Your task to perform on an android device: allow cookies in the chrome app Image 0: 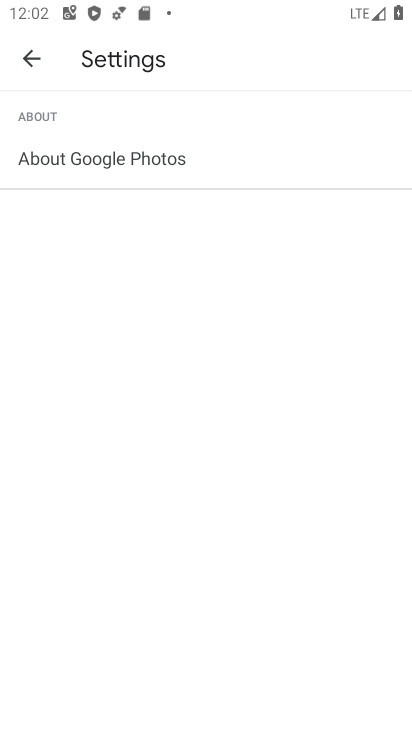
Step 0: press home button
Your task to perform on an android device: allow cookies in the chrome app Image 1: 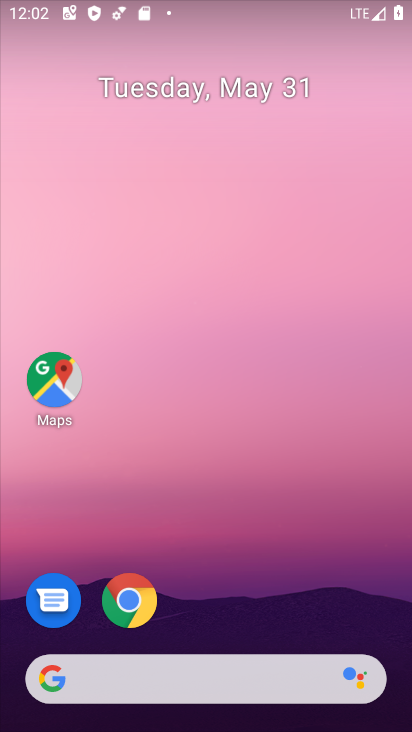
Step 1: click (130, 607)
Your task to perform on an android device: allow cookies in the chrome app Image 2: 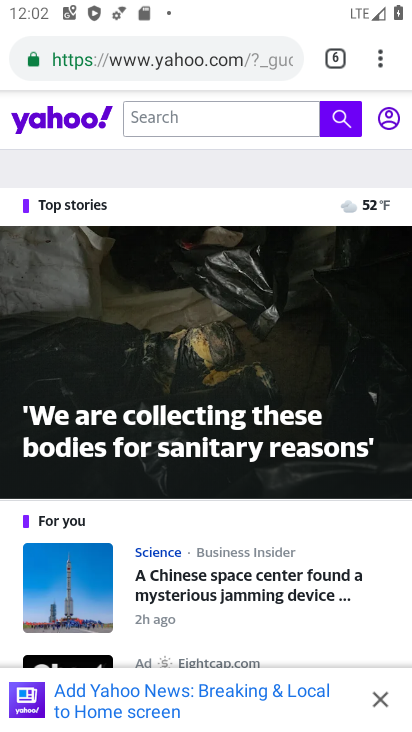
Step 2: click (379, 65)
Your task to perform on an android device: allow cookies in the chrome app Image 3: 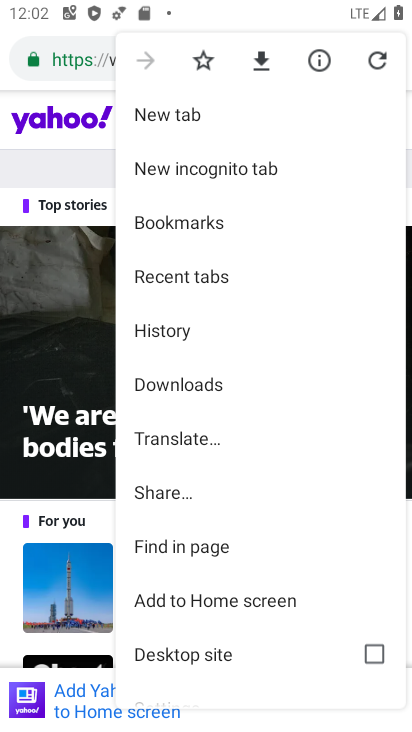
Step 3: drag from (183, 634) to (184, 529)
Your task to perform on an android device: allow cookies in the chrome app Image 4: 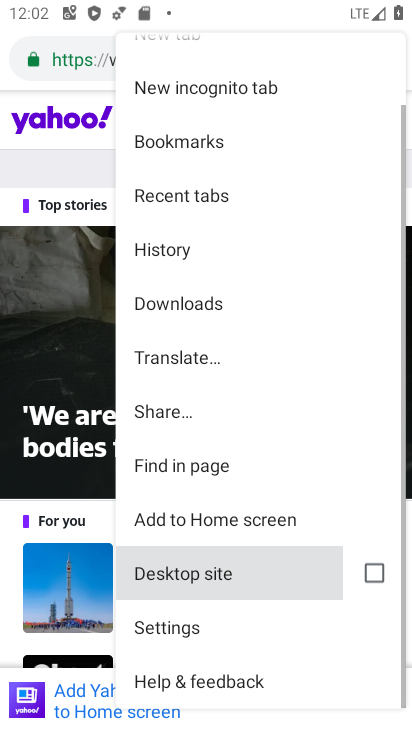
Step 4: drag from (191, 314) to (191, 210)
Your task to perform on an android device: allow cookies in the chrome app Image 5: 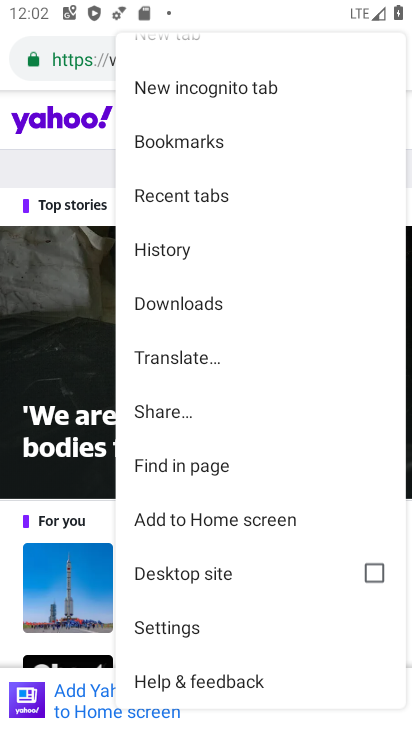
Step 5: click (154, 626)
Your task to perform on an android device: allow cookies in the chrome app Image 6: 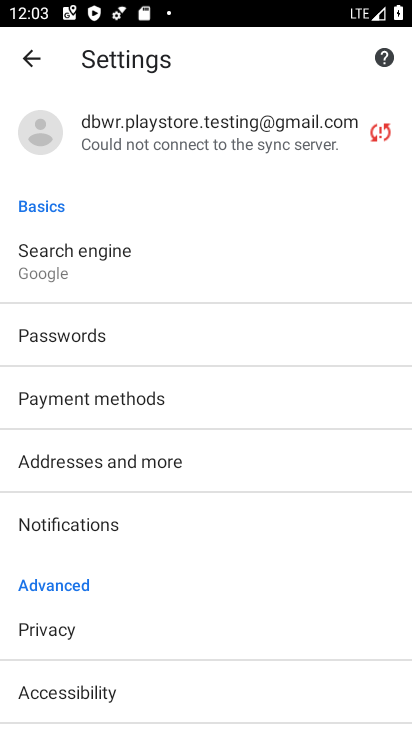
Step 6: drag from (116, 710) to (125, 549)
Your task to perform on an android device: allow cookies in the chrome app Image 7: 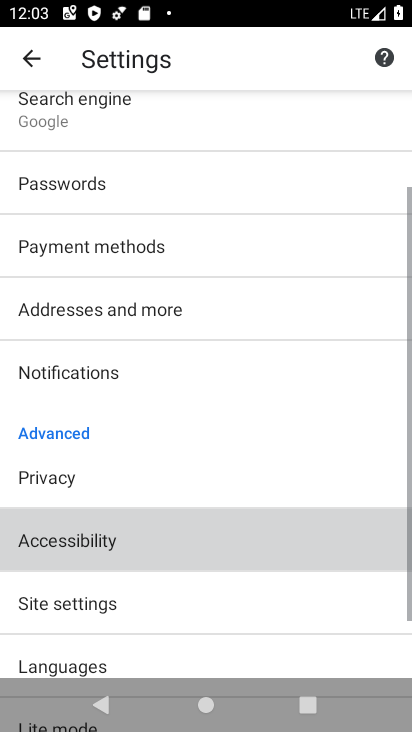
Step 7: drag from (125, 376) to (126, 275)
Your task to perform on an android device: allow cookies in the chrome app Image 8: 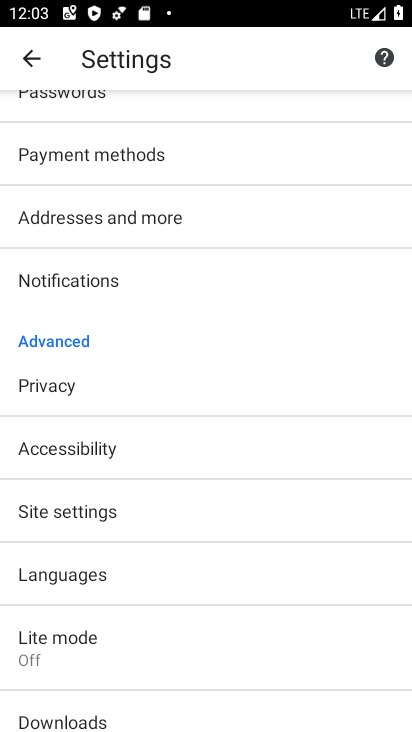
Step 8: click (72, 504)
Your task to perform on an android device: allow cookies in the chrome app Image 9: 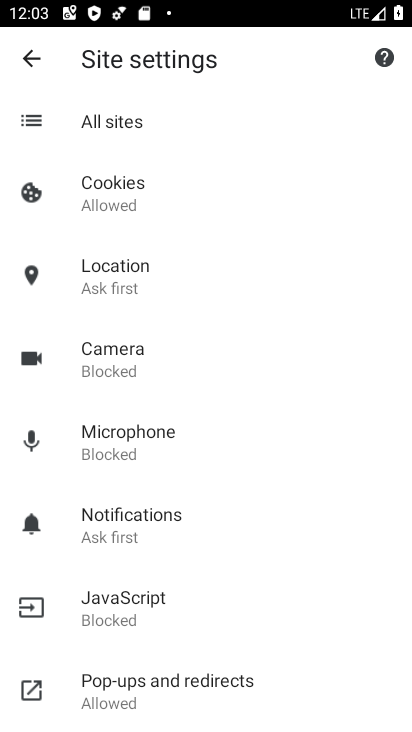
Step 9: click (102, 187)
Your task to perform on an android device: allow cookies in the chrome app Image 10: 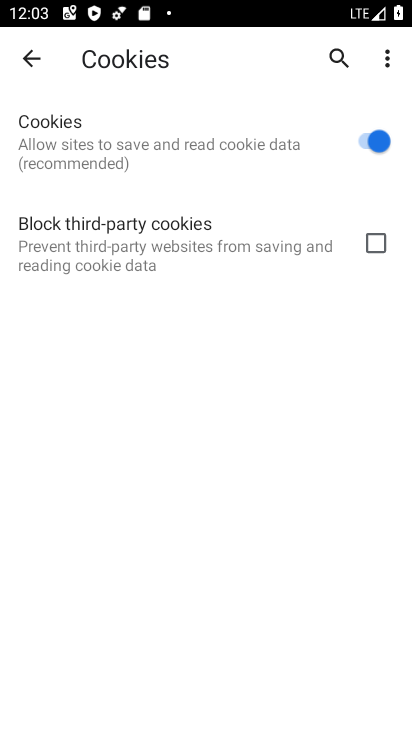
Step 10: task complete